Your task to perform on an android device: Open the map Image 0: 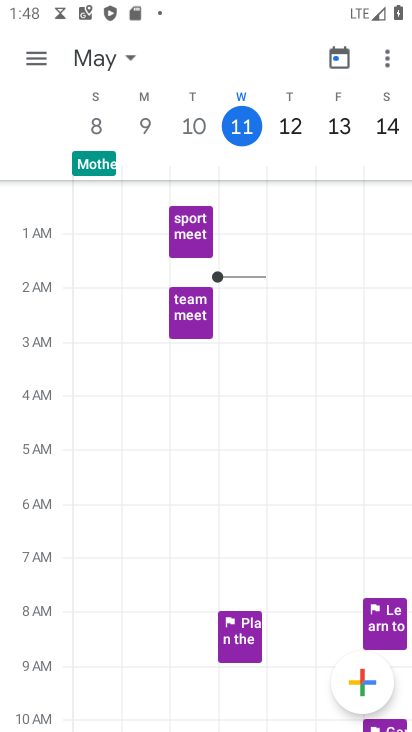
Step 0: press home button
Your task to perform on an android device: Open the map Image 1: 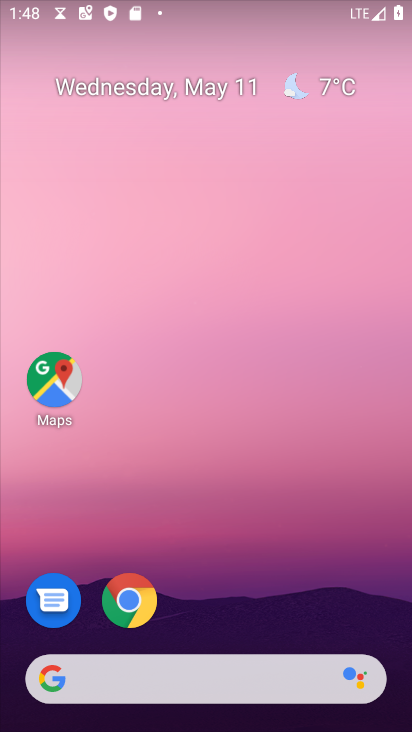
Step 1: click (60, 372)
Your task to perform on an android device: Open the map Image 2: 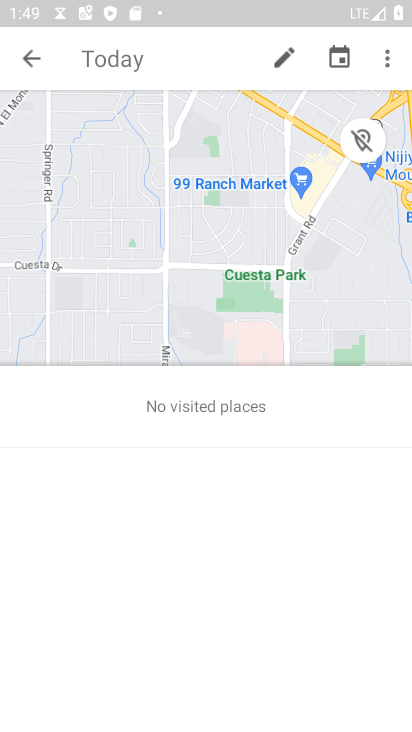
Step 2: task complete